Your task to perform on an android device: Open Wikipedia Image 0: 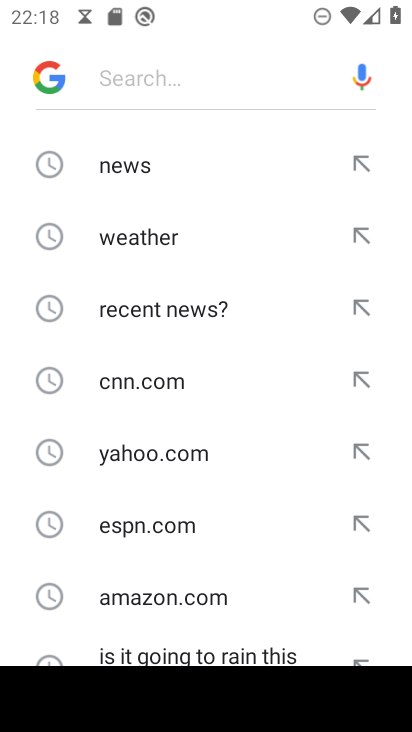
Step 0: type "Wikipedia"
Your task to perform on an android device: Open Wikipedia Image 1: 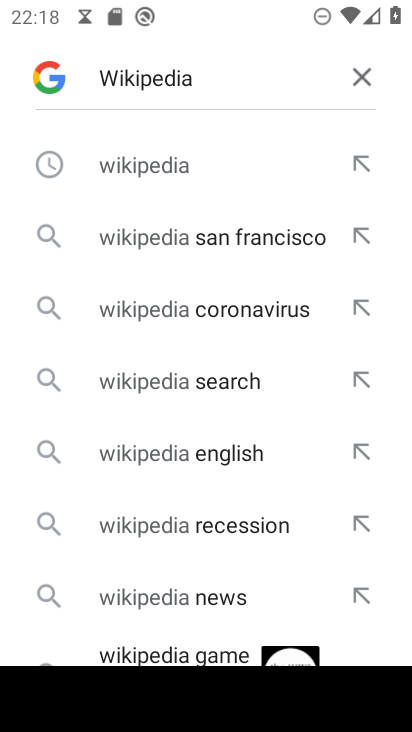
Step 1: click (167, 167)
Your task to perform on an android device: Open Wikipedia Image 2: 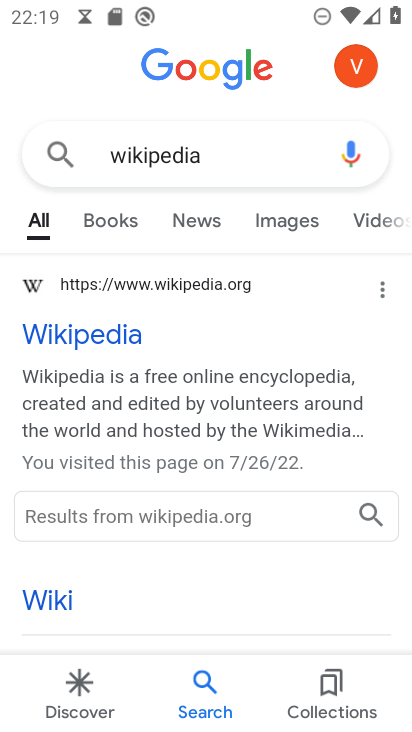
Step 2: click (95, 333)
Your task to perform on an android device: Open Wikipedia Image 3: 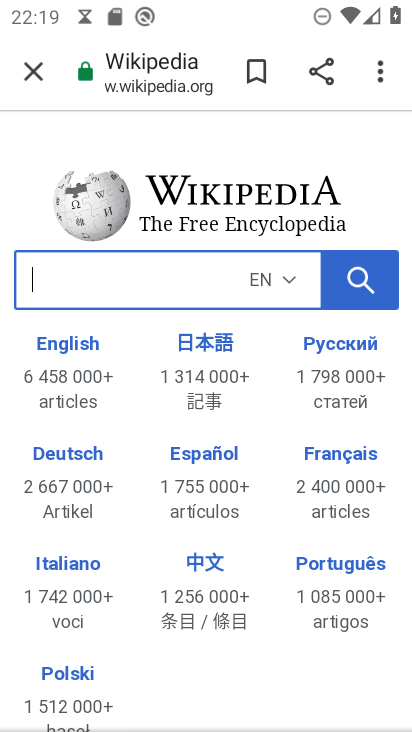
Step 3: task complete